Your task to perform on an android device: What's on my calendar tomorrow? Image 0: 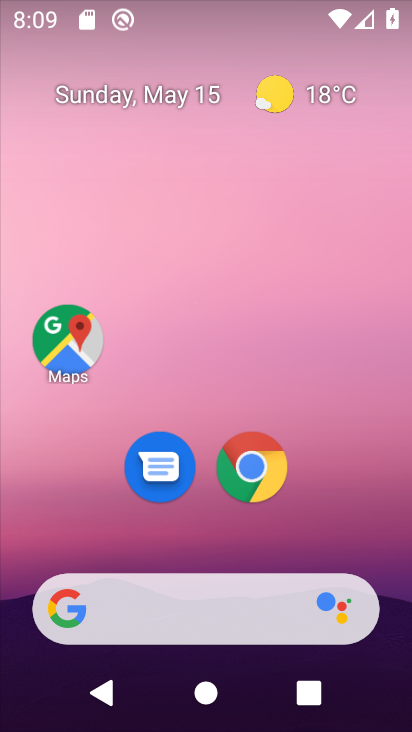
Step 0: drag from (210, 549) to (227, 34)
Your task to perform on an android device: What's on my calendar tomorrow? Image 1: 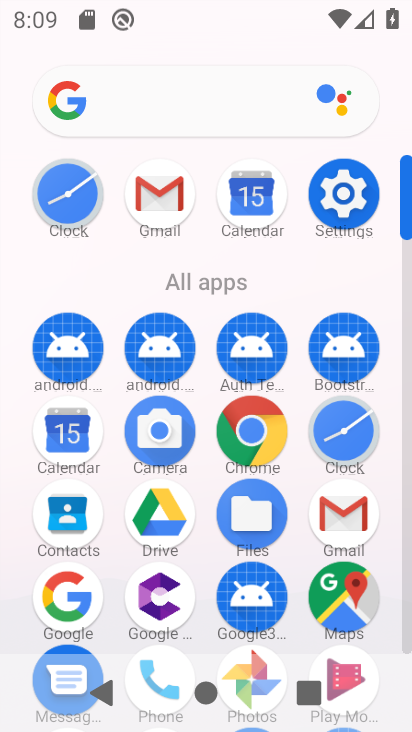
Step 1: click (64, 438)
Your task to perform on an android device: What's on my calendar tomorrow? Image 2: 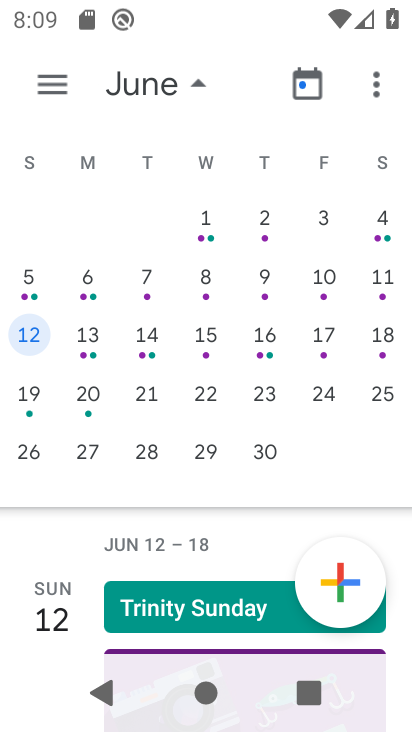
Step 2: drag from (59, 250) to (388, 274)
Your task to perform on an android device: What's on my calendar tomorrow? Image 3: 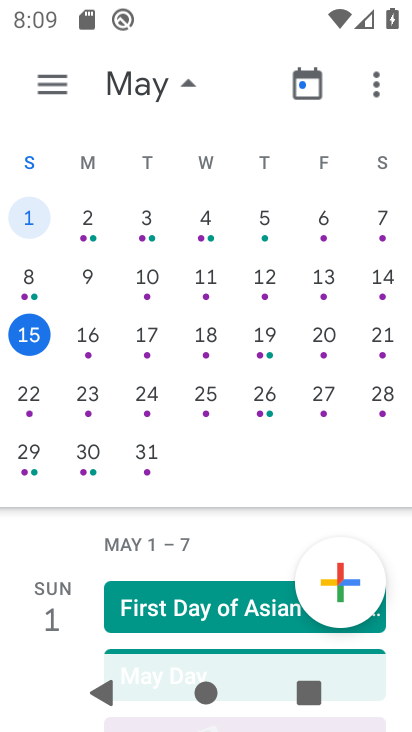
Step 3: click (85, 345)
Your task to perform on an android device: What's on my calendar tomorrow? Image 4: 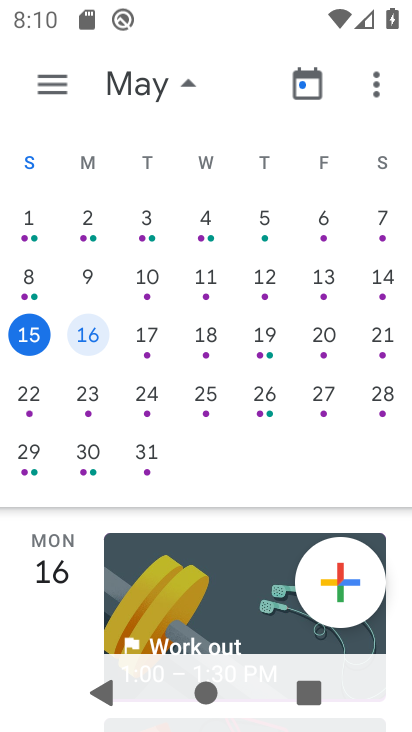
Step 4: task complete